Your task to perform on an android device: turn on location history Image 0: 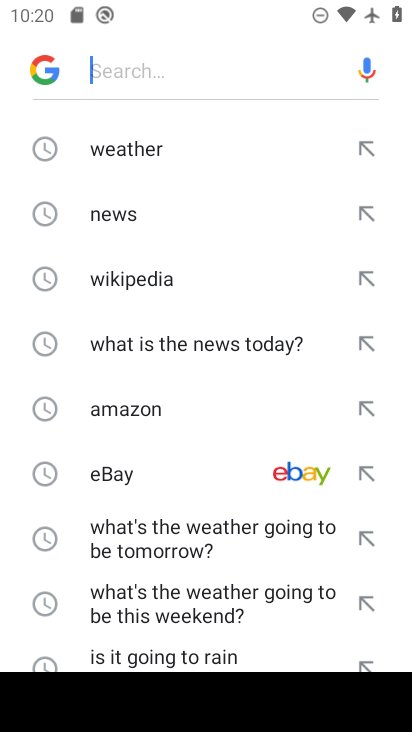
Step 0: press home button
Your task to perform on an android device: turn on location history Image 1: 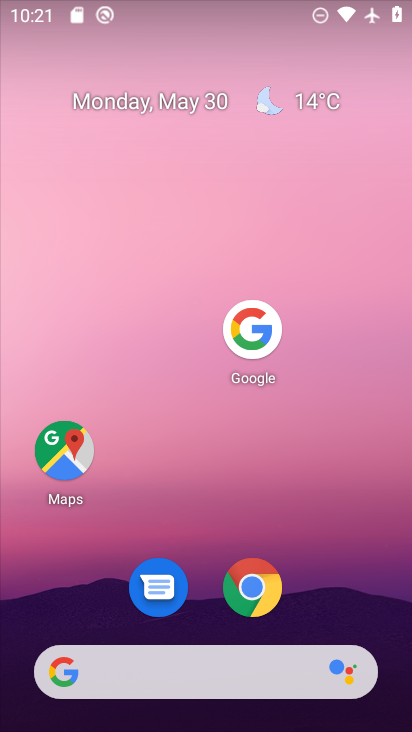
Step 1: click (54, 456)
Your task to perform on an android device: turn on location history Image 2: 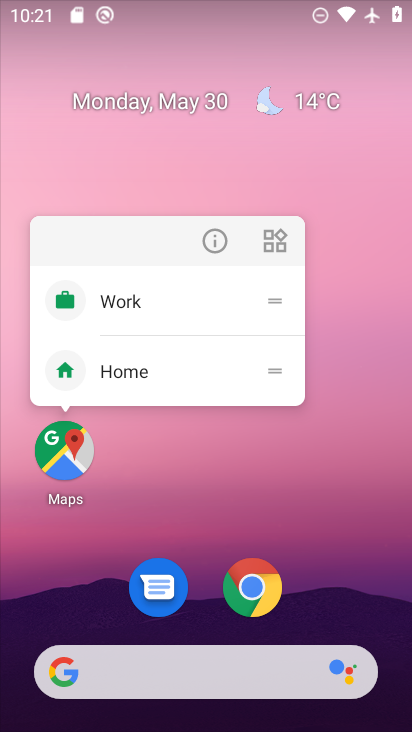
Step 2: click (71, 458)
Your task to perform on an android device: turn on location history Image 3: 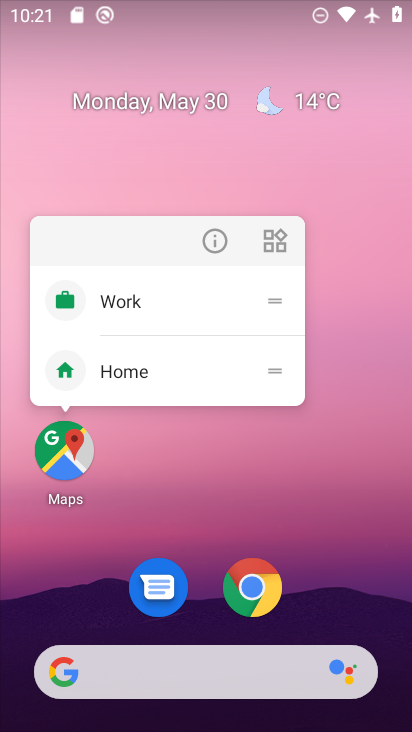
Step 3: click (67, 461)
Your task to perform on an android device: turn on location history Image 4: 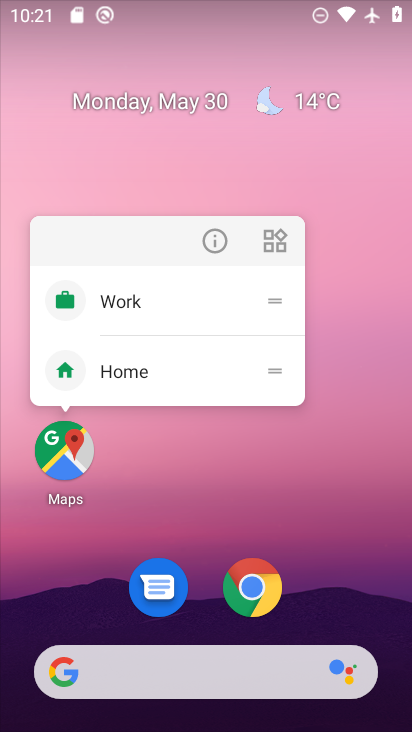
Step 4: click (56, 464)
Your task to perform on an android device: turn on location history Image 5: 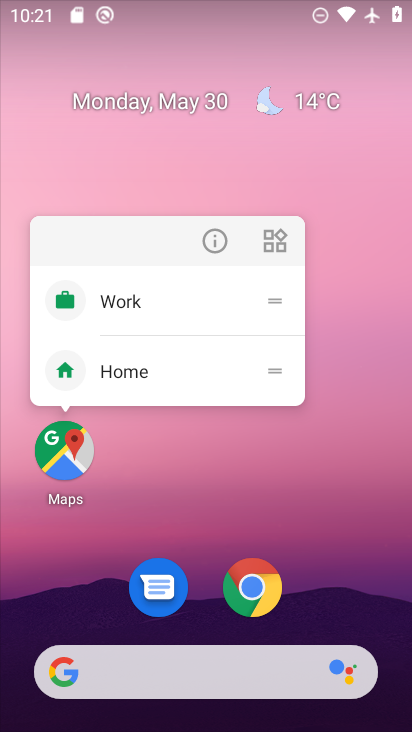
Step 5: click (65, 466)
Your task to perform on an android device: turn on location history Image 6: 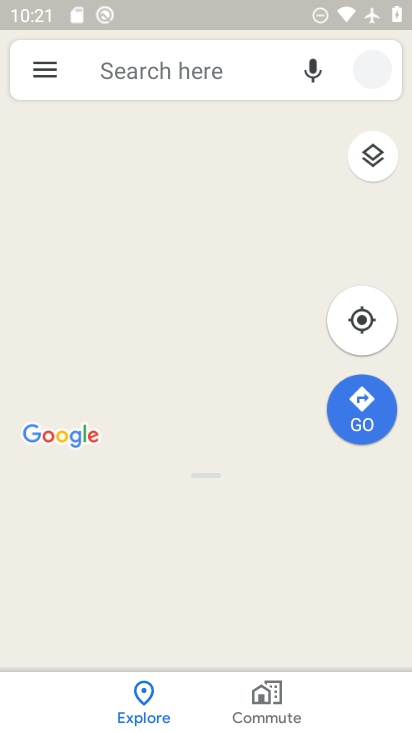
Step 6: click (54, 71)
Your task to perform on an android device: turn on location history Image 7: 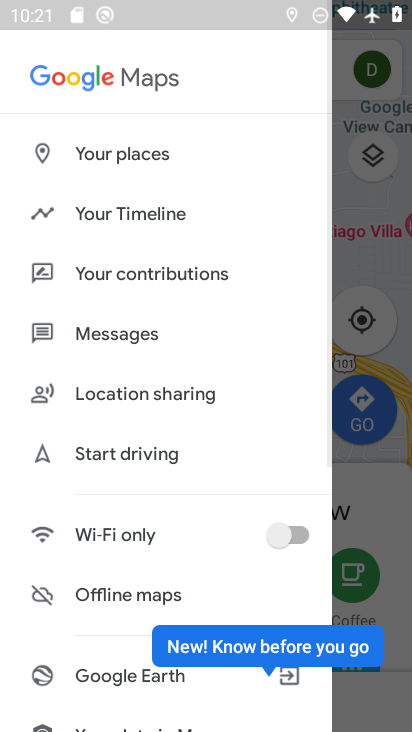
Step 7: click (96, 214)
Your task to perform on an android device: turn on location history Image 8: 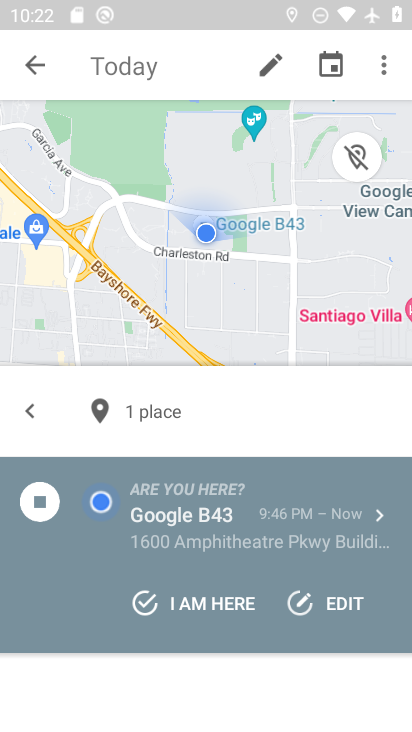
Step 8: click (382, 54)
Your task to perform on an android device: turn on location history Image 9: 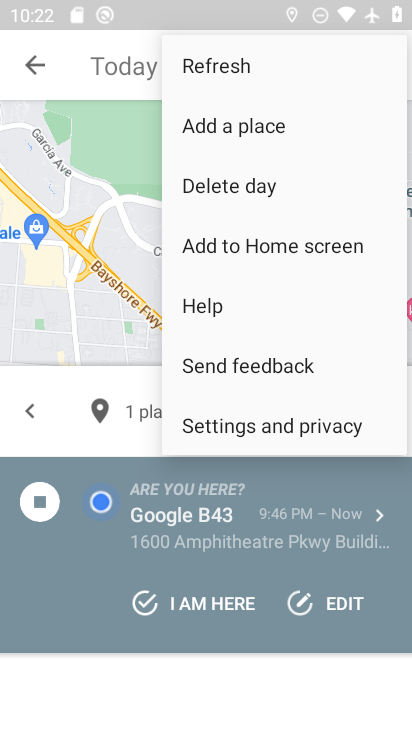
Step 9: click (265, 434)
Your task to perform on an android device: turn on location history Image 10: 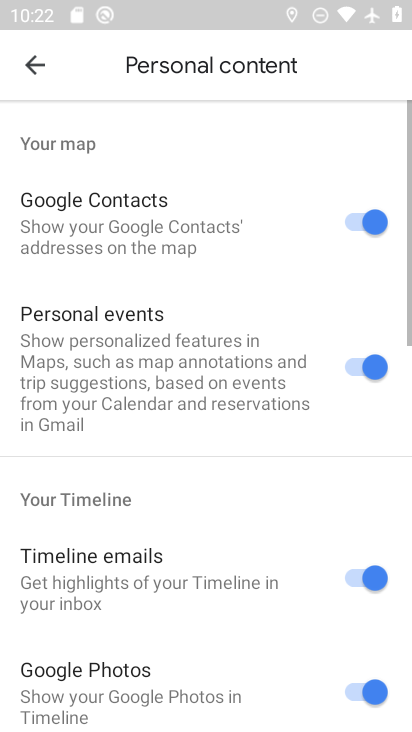
Step 10: drag from (214, 579) to (410, 55)
Your task to perform on an android device: turn on location history Image 11: 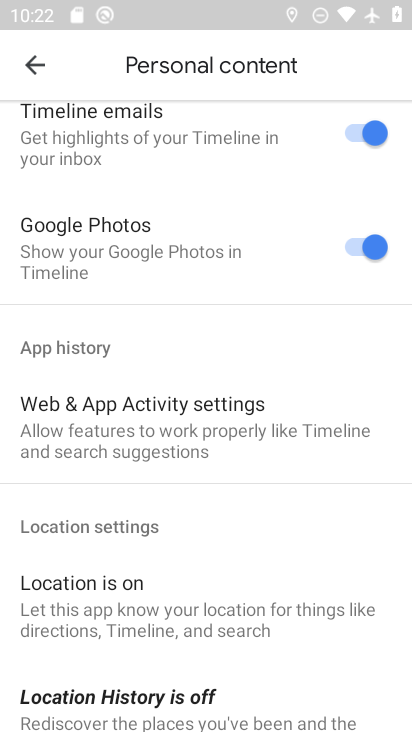
Step 11: drag from (195, 547) to (336, 250)
Your task to perform on an android device: turn on location history Image 12: 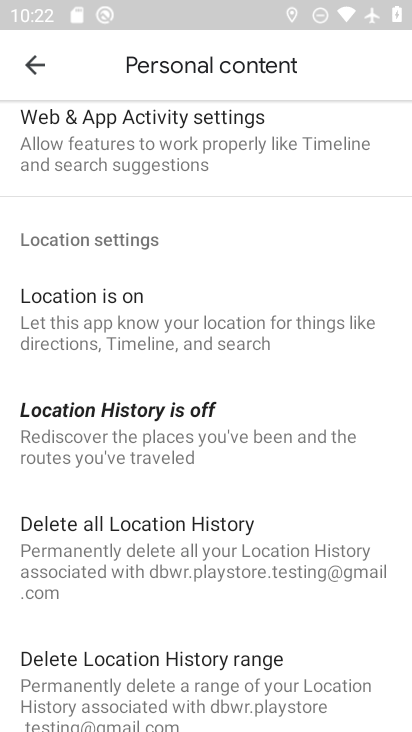
Step 12: click (149, 446)
Your task to perform on an android device: turn on location history Image 13: 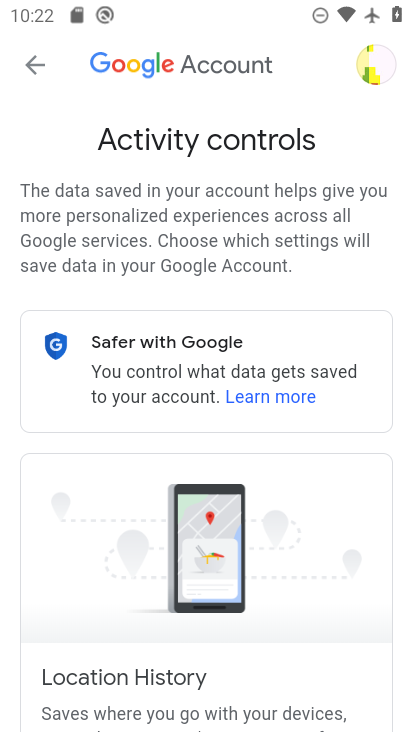
Step 13: click (245, 202)
Your task to perform on an android device: turn on location history Image 14: 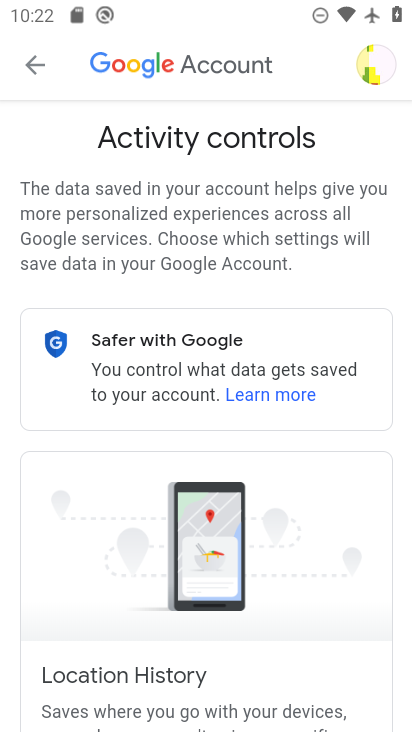
Step 14: task complete